Your task to perform on an android device: toggle javascript in the chrome app Image 0: 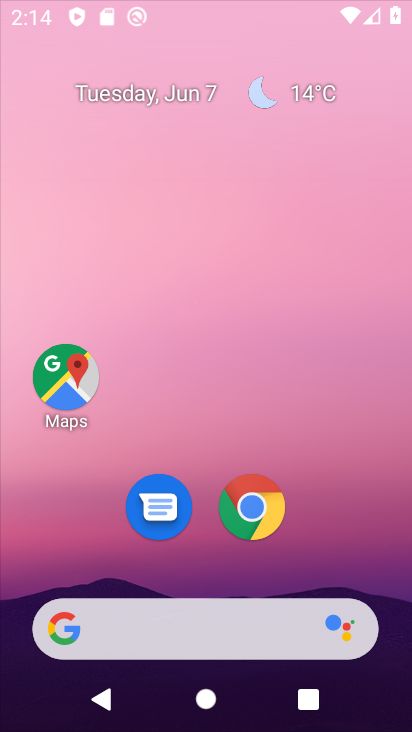
Step 0: drag from (356, 505) to (321, 57)
Your task to perform on an android device: toggle javascript in the chrome app Image 1: 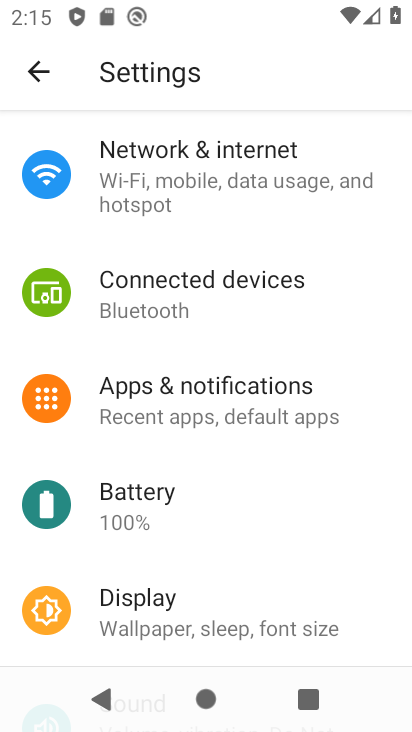
Step 1: drag from (278, 624) to (294, 122)
Your task to perform on an android device: toggle javascript in the chrome app Image 2: 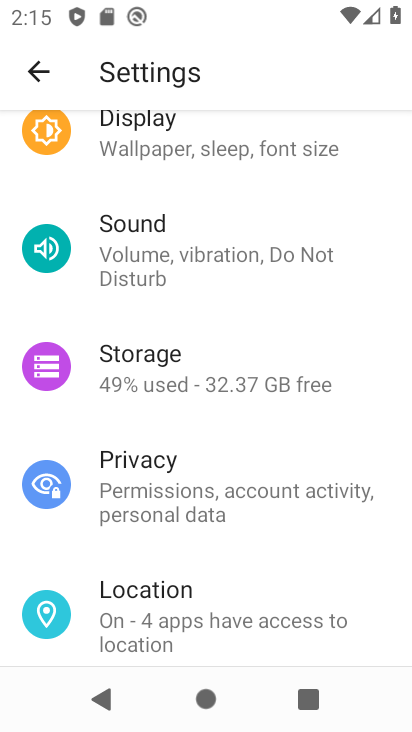
Step 2: drag from (235, 547) to (288, 129)
Your task to perform on an android device: toggle javascript in the chrome app Image 3: 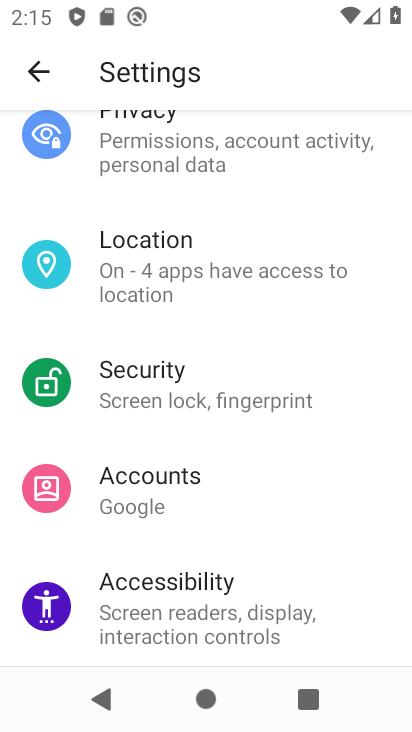
Step 3: press home button
Your task to perform on an android device: toggle javascript in the chrome app Image 4: 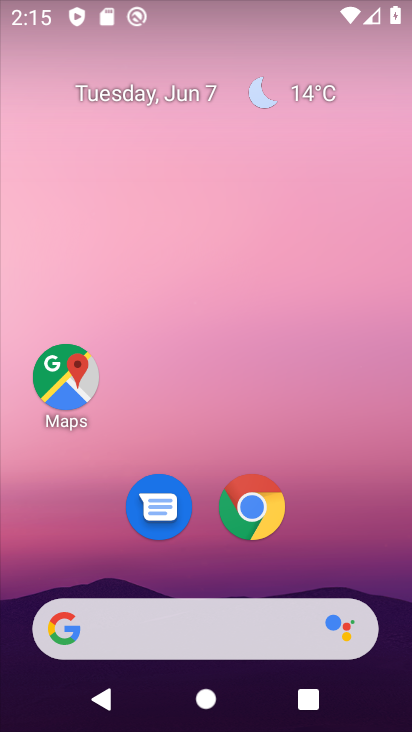
Step 4: click (253, 498)
Your task to perform on an android device: toggle javascript in the chrome app Image 5: 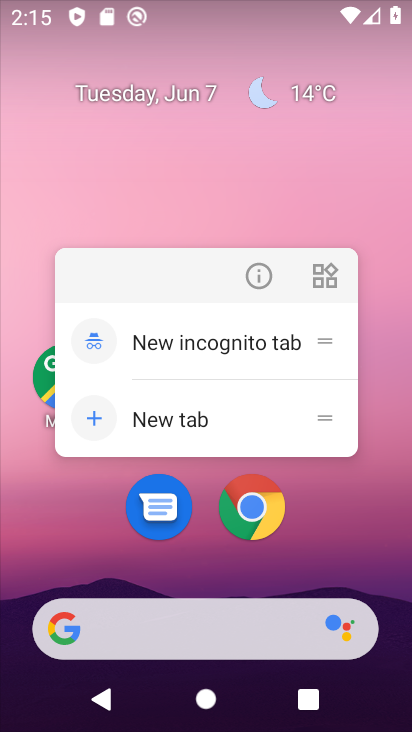
Step 5: click (253, 499)
Your task to perform on an android device: toggle javascript in the chrome app Image 6: 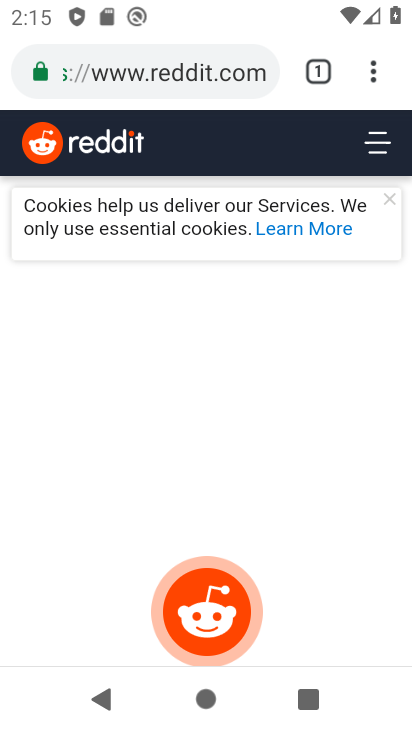
Step 6: click (379, 65)
Your task to perform on an android device: toggle javascript in the chrome app Image 7: 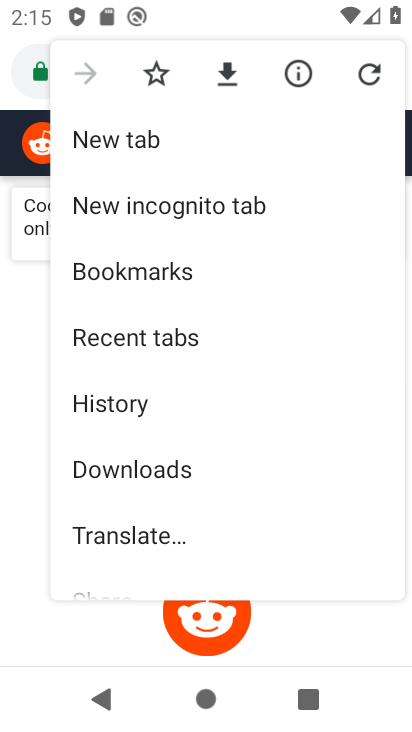
Step 7: drag from (179, 520) to (226, 123)
Your task to perform on an android device: toggle javascript in the chrome app Image 8: 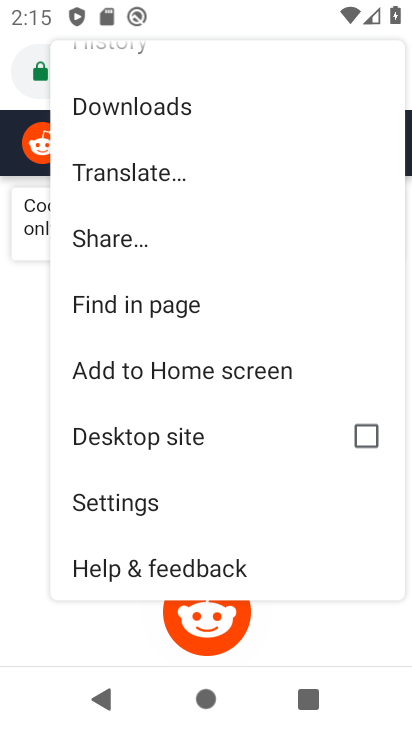
Step 8: click (148, 507)
Your task to perform on an android device: toggle javascript in the chrome app Image 9: 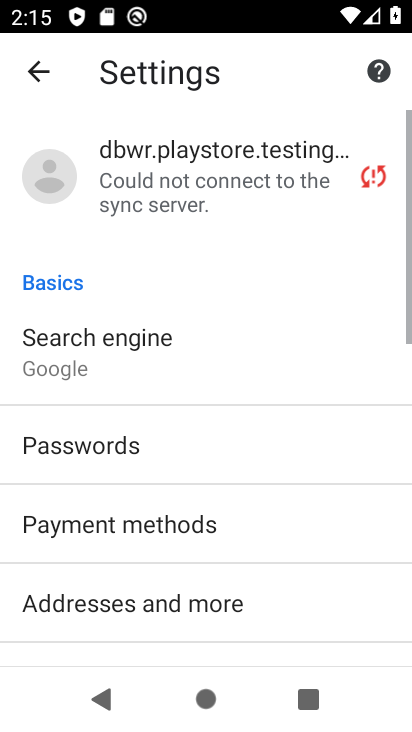
Step 9: drag from (200, 510) to (227, 113)
Your task to perform on an android device: toggle javascript in the chrome app Image 10: 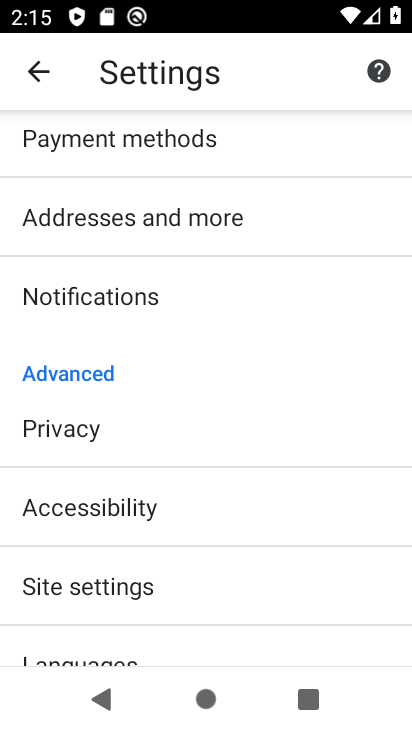
Step 10: click (125, 578)
Your task to perform on an android device: toggle javascript in the chrome app Image 11: 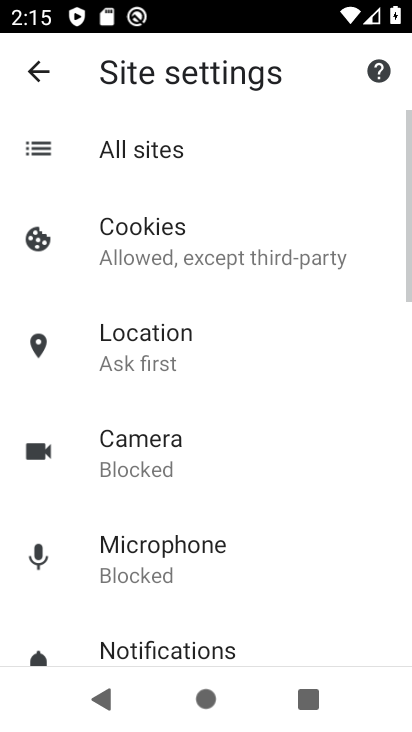
Step 11: drag from (243, 509) to (241, 109)
Your task to perform on an android device: toggle javascript in the chrome app Image 12: 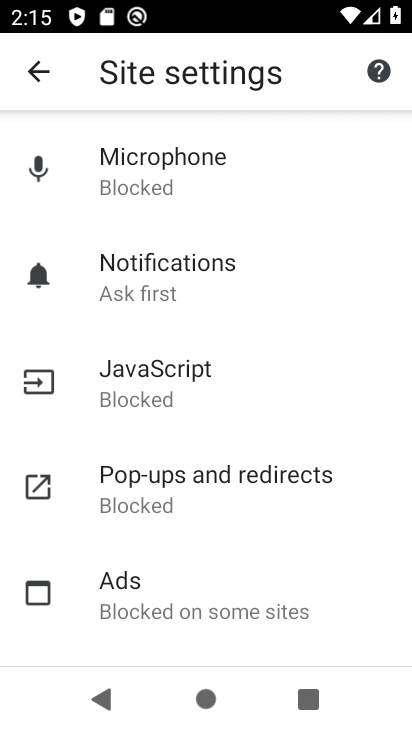
Step 12: click (153, 390)
Your task to perform on an android device: toggle javascript in the chrome app Image 13: 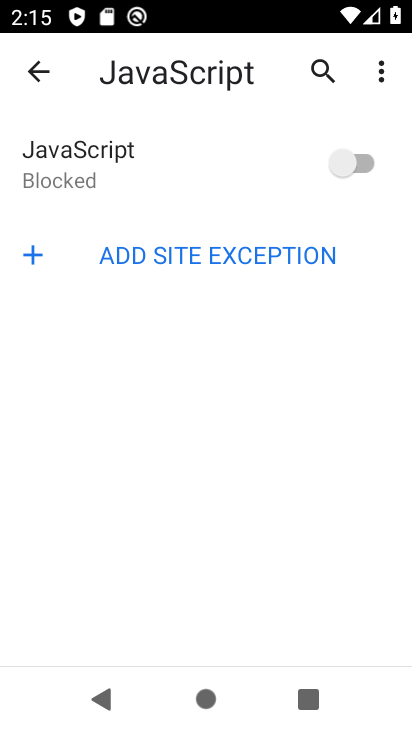
Step 13: click (352, 166)
Your task to perform on an android device: toggle javascript in the chrome app Image 14: 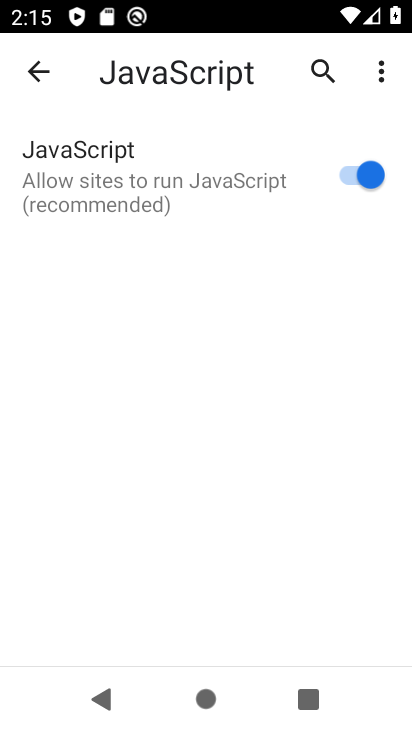
Step 14: task complete